Your task to perform on an android device: Show me the alarms in the clock app Image 0: 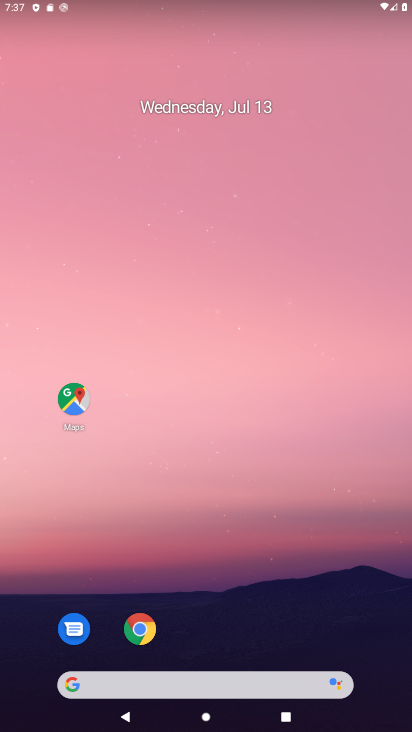
Step 0: drag from (170, 569) to (197, 3)
Your task to perform on an android device: Show me the alarms in the clock app Image 1: 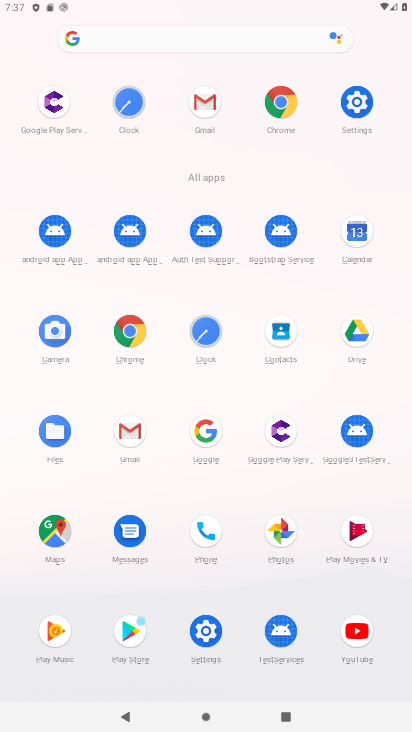
Step 1: click (132, 91)
Your task to perform on an android device: Show me the alarms in the clock app Image 2: 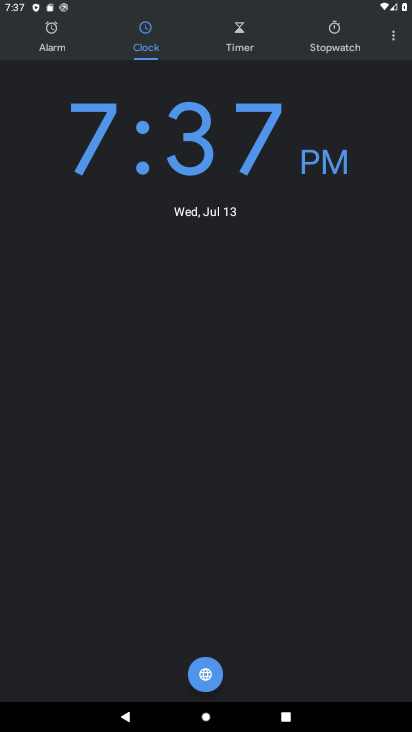
Step 2: click (69, 47)
Your task to perform on an android device: Show me the alarms in the clock app Image 3: 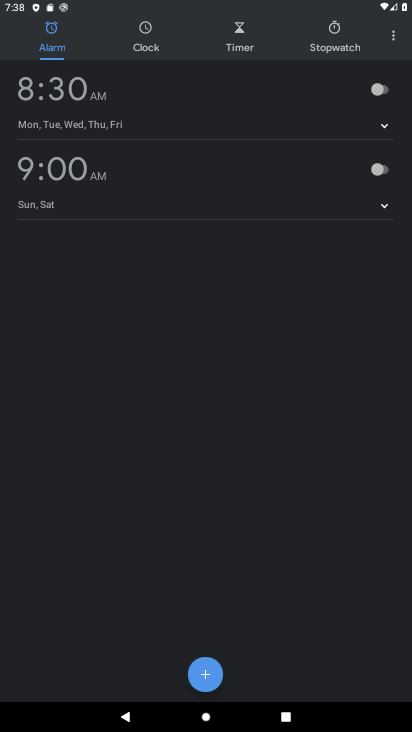
Step 3: task complete